Your task to perform on an android device: move a message to another label in the gmail app Image 0: 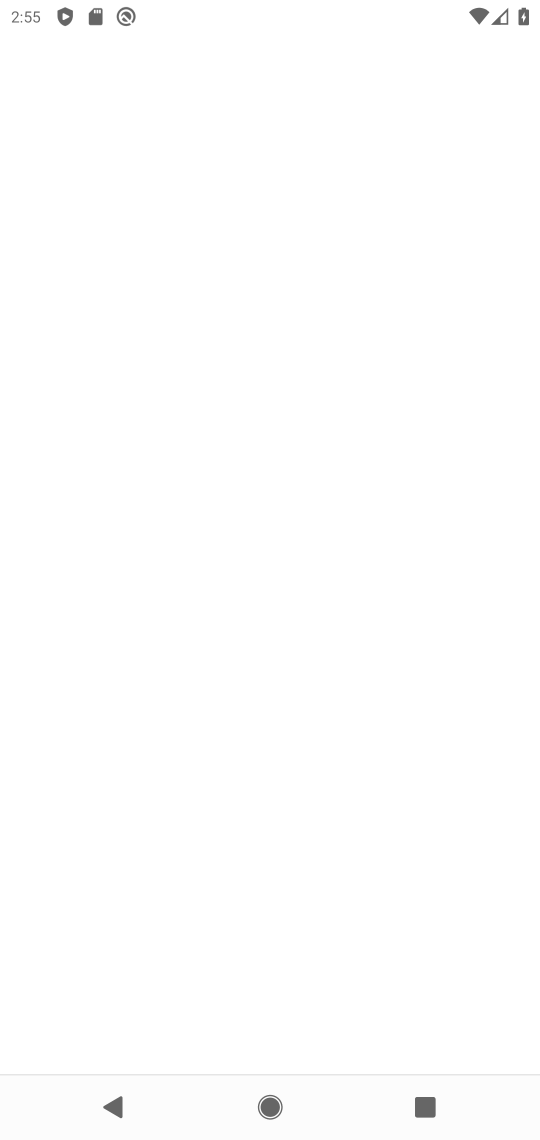
Step 0: press home button
Your task to perform on an android device: move a message to another label in the gmail app Image 1: 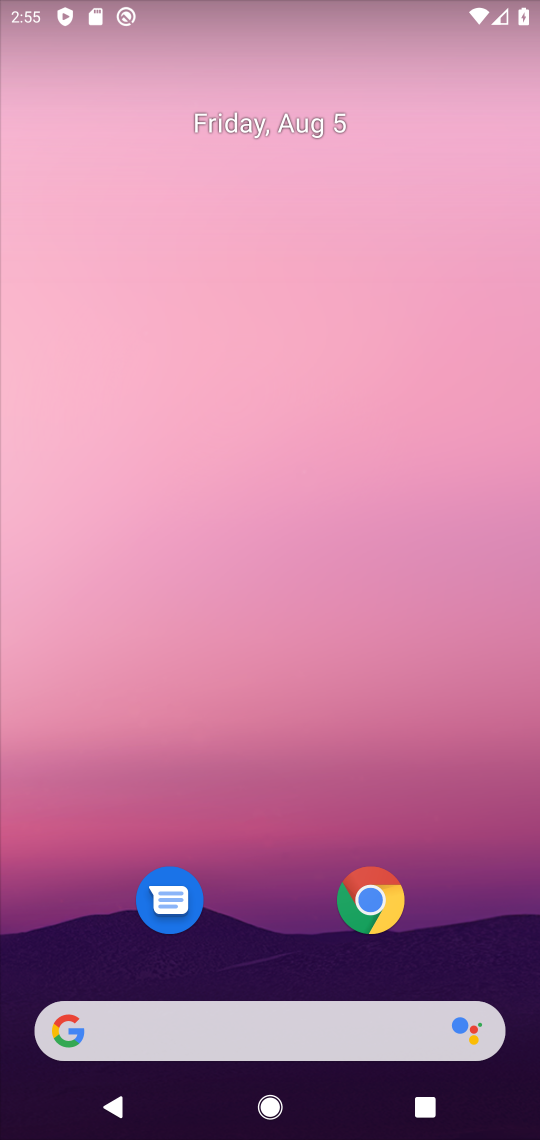
Step 1: drag from (301, 851) to (343, 271)
Your task to perform on an android device: move a message to another label in the gmail app Image 2: 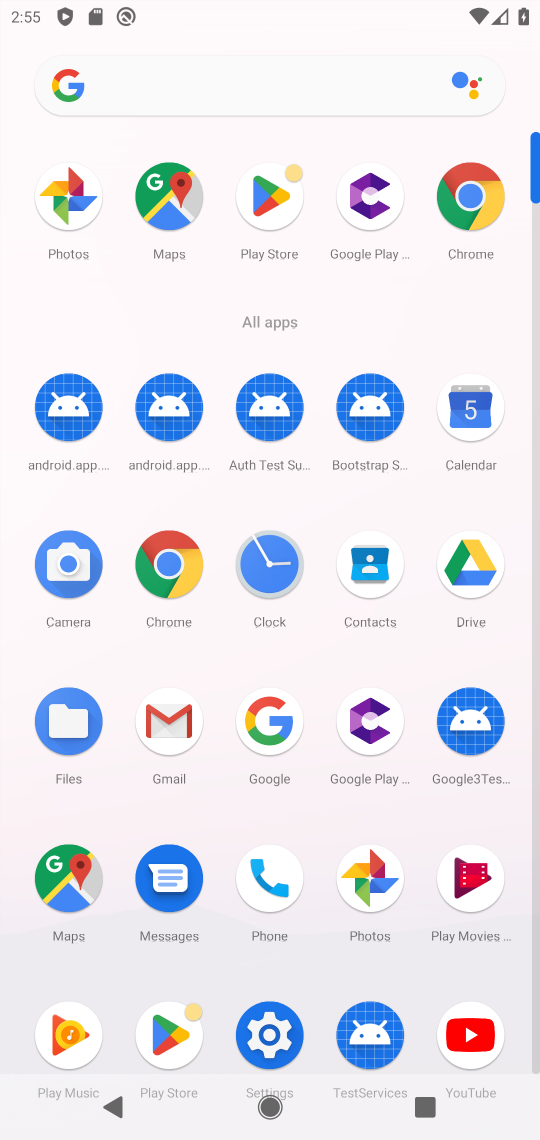
Step 2: click (160, 720)
Your task to perform on an android device: move a message to another label in the gmail app Image 3: 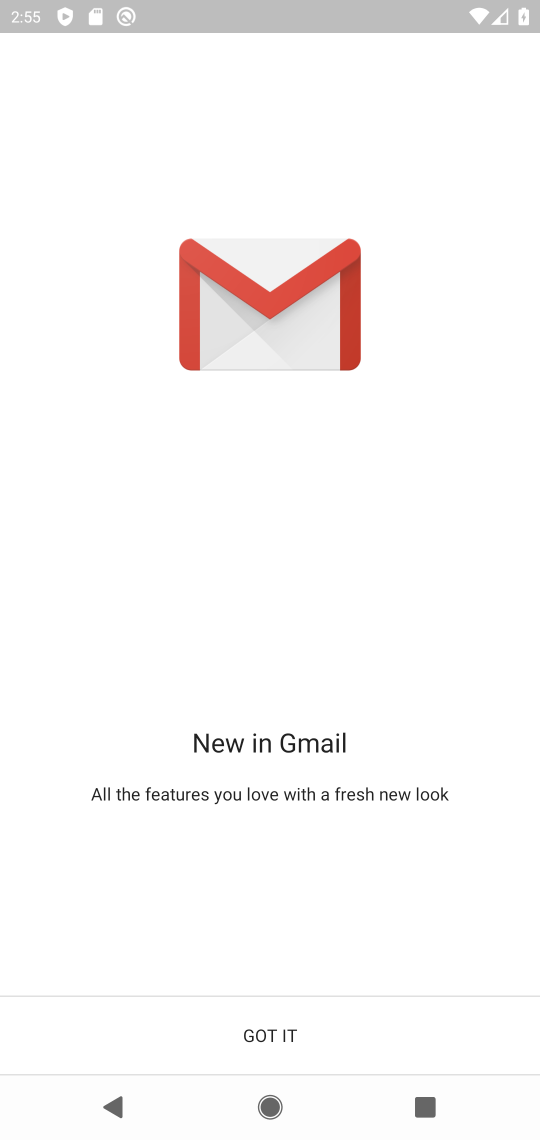
Step 3: click (301, 1021)
Your task to perform on an android device: move a message to another label in the gmail app Image 4: 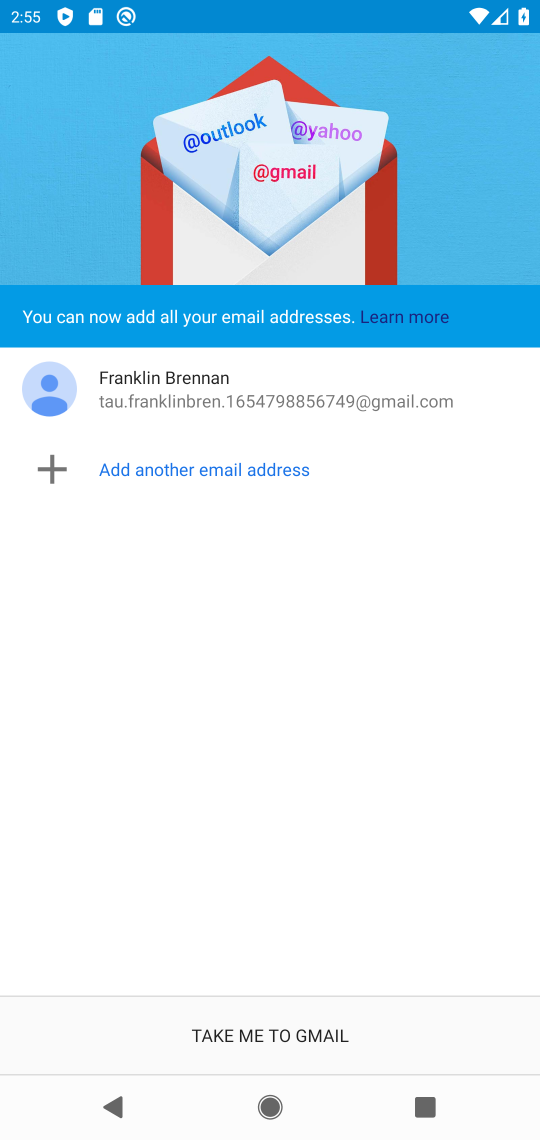
Step 4: click (286, 1017)
Your task to perform on an android device: move a message to another label in the gmail app Image 5: 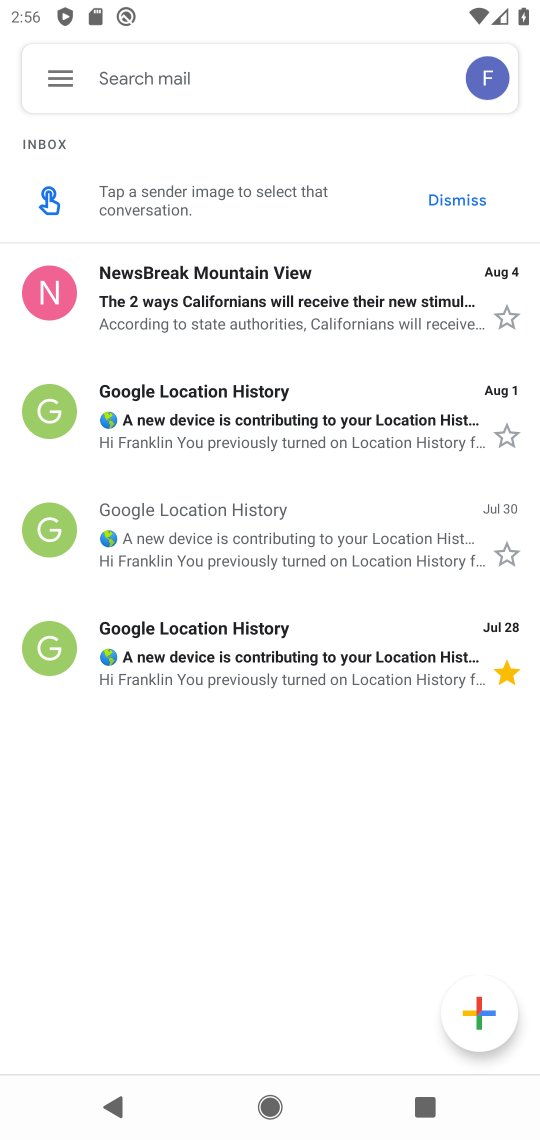
Step 5: click (210, 292)
Your task to perform on an android device: move a message to another label in the gmail app Image 6: 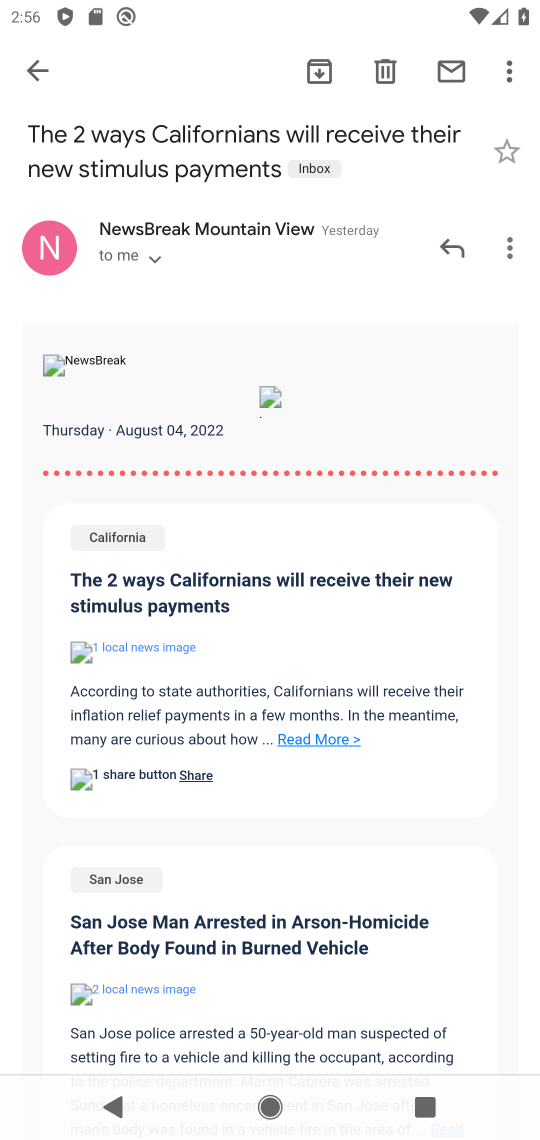
Step 6: click (511, 70)
Your task to perform on an android device: move a message to another label in the gmail app Image 7: 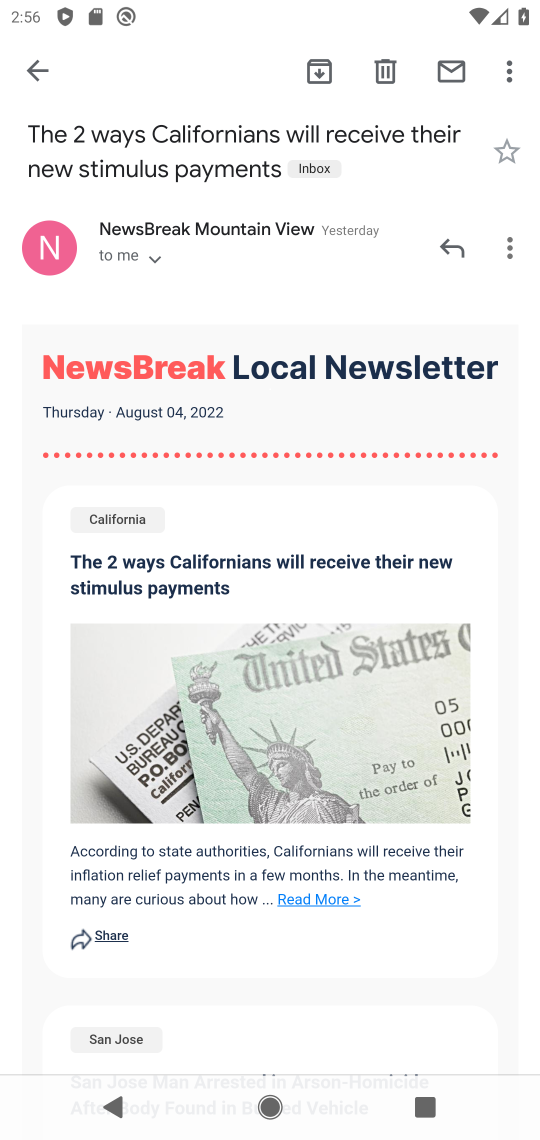
Step 7: click (504, 75)
Your task to perform on an android device: move a message to another label in the gmail app Image 8: 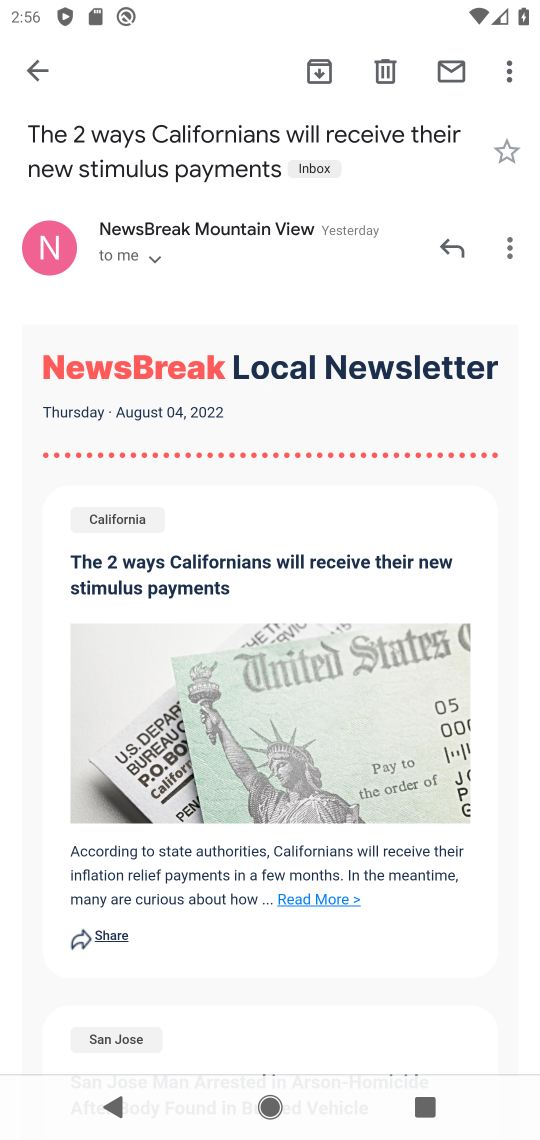
Step 8: click (505, 72)
Your task to perform on an android device: move a message to another label in the gmail app Image 9: 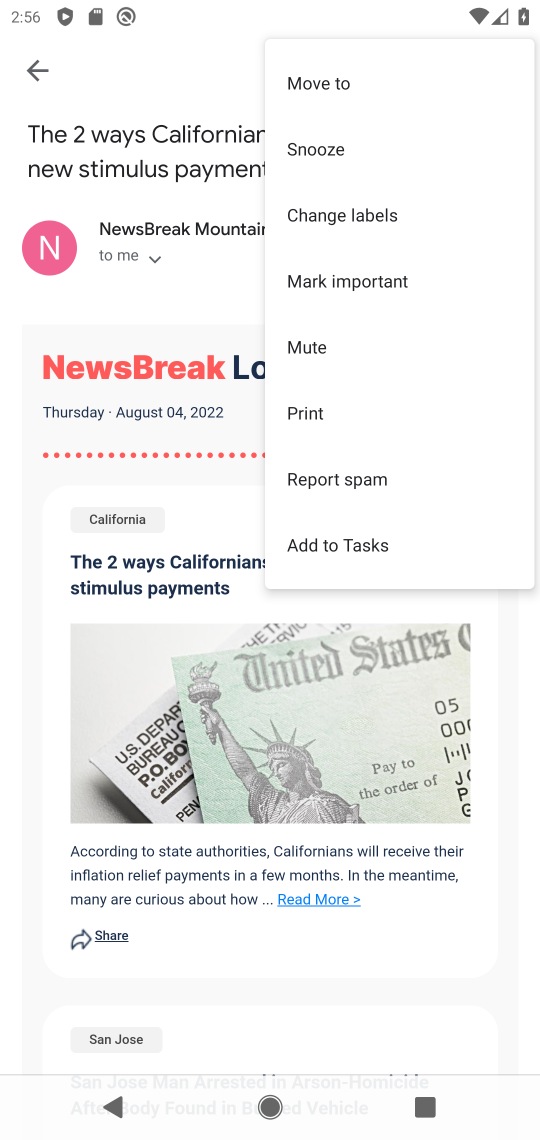
Step 9: click (337, 214)
Your task to perform on an android device: move a message to another label in the gmail app Image 10: 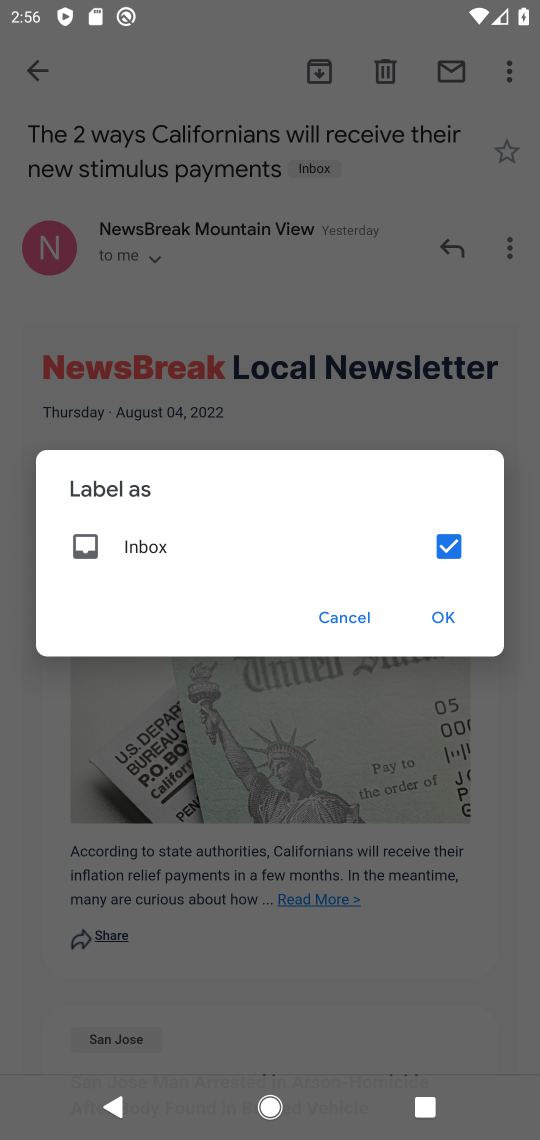
Step 10: click (441, 619)
Your task to perform on an android device: move a message to another label in the gmail app Image 11: 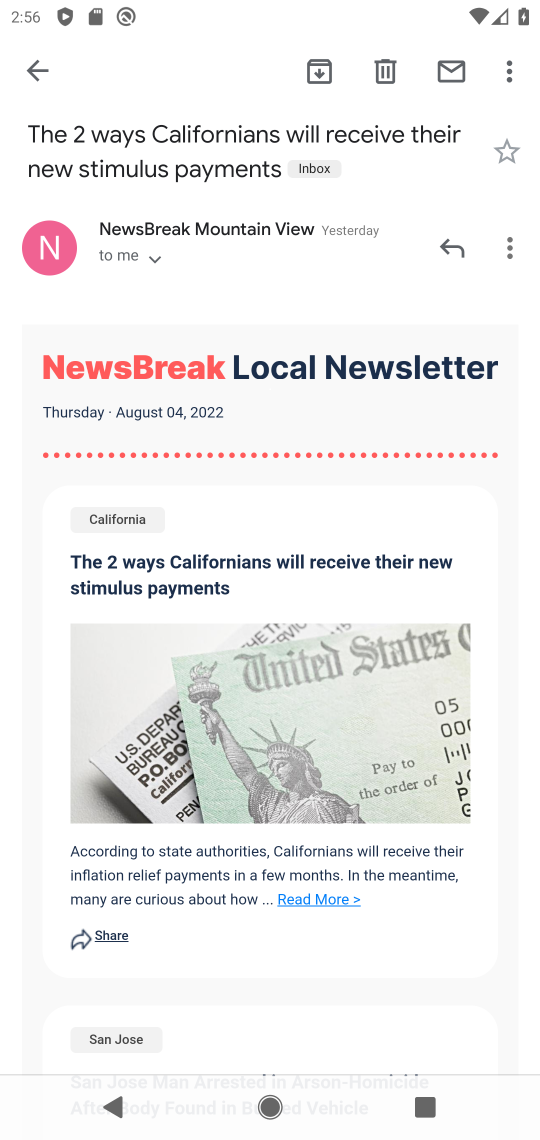
Step 11: task complete